Your task to perform on an android device: turn on translation in the chrome app Image 0: 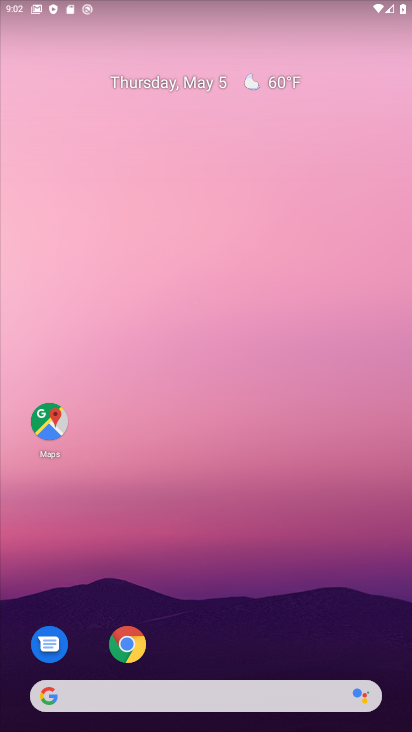
Step 0: drag from (344, 612) to (335, 76)
Your task to perform on an android device: turn on translation in the chrome app Image 1: 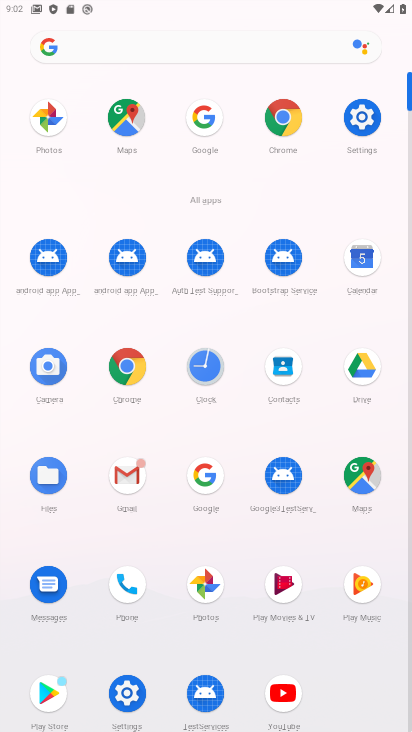
Step 1: click (128, 363)
Your task to perform on an android device: turn on translation in the chrome app Image 2: 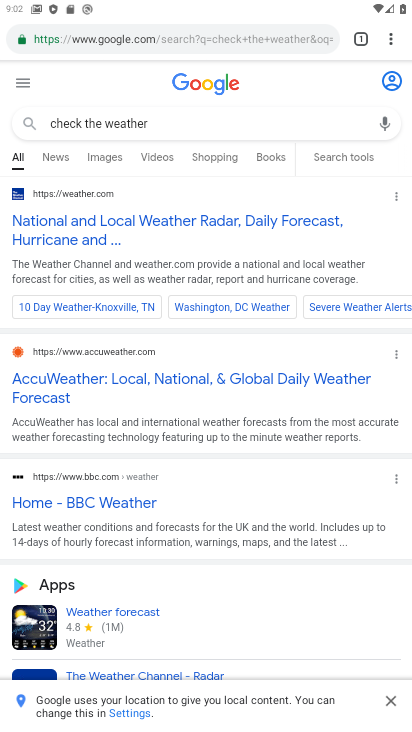
Step 2: drag from (387, 39) to (265, 430)
Your task to perform on an android device: turn on translation in the chrome app Image 3: 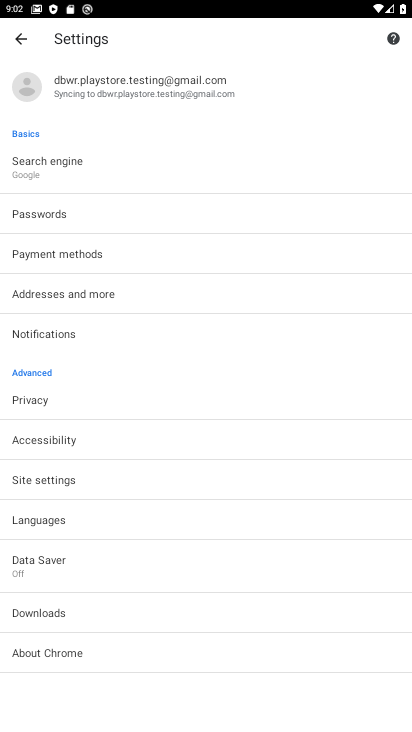
Step 3: click (95, 525)
Your task to perform on an android device: turn on translation in the chrome app Image 4: 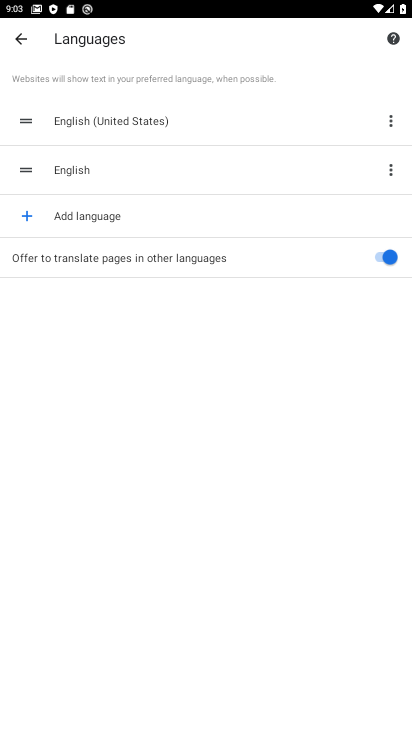
Step 4: task complete